Your task to perform on an android device: Open the phone app and click the voicemail tab. Image 0: 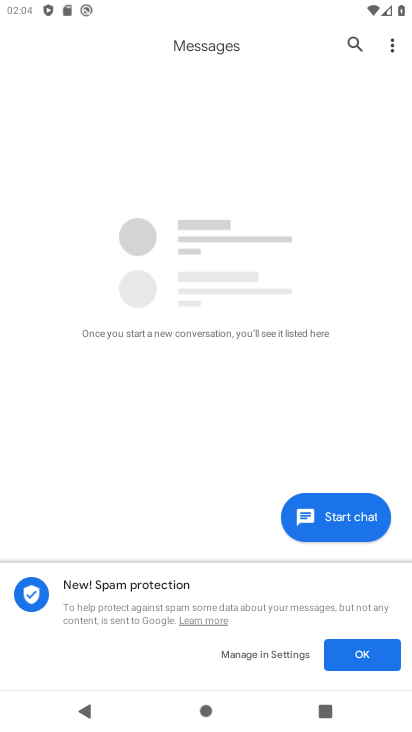
Step 0: press home button
Your task to perform on an android device: Open the phone app and click the voicemail tab. Image 1: 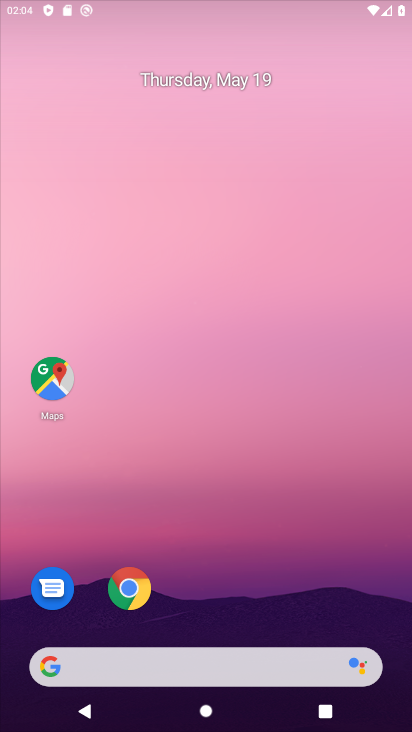
Step 1: drag from (211, 604) to (187, 101)
Your task to perform on an android device: Open the phone app and click the voicemail tab. Image 2: 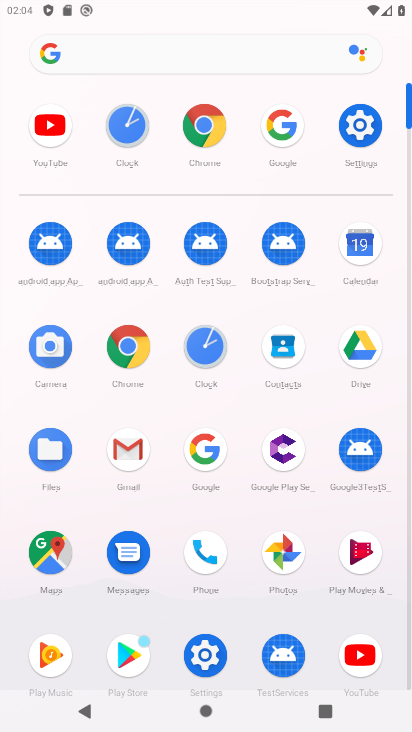
Step 2: click (208, 543)
Your task to perform on an android device: Open the phone app and click the voicemail tab. Image 3: 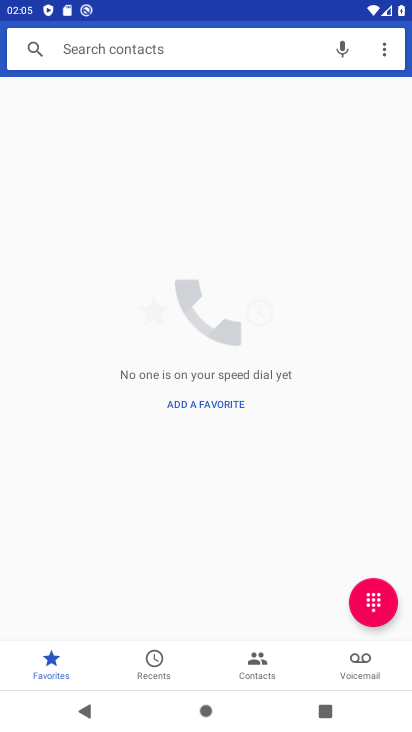
Step 3: click (358, 670)
Your task to perform on an android device: Open the phone app and click the voicemail tab. Image 4: 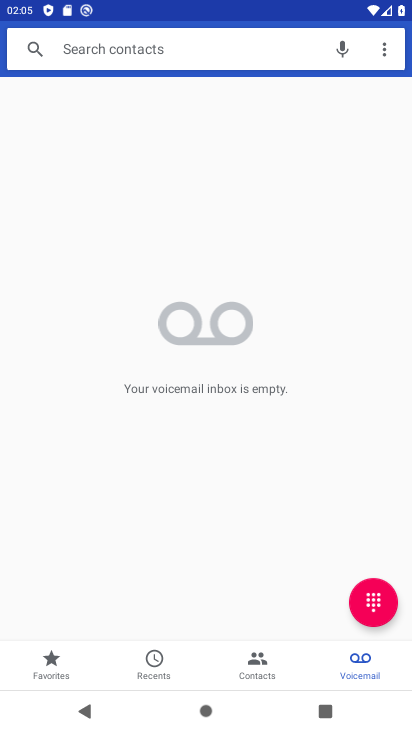
Step 4: task complete